Your task to perform on an android device: turn on the 24-hour format for clock Image 0: 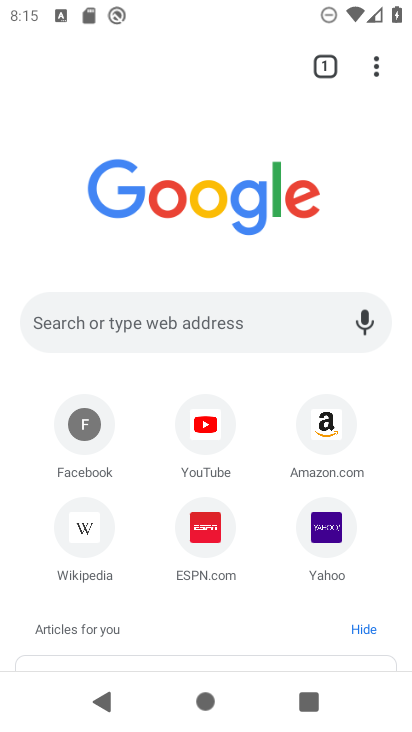
Step 0: press home button
Your task to perform on an android device: turn on the 24-hour format for clock Image 1: 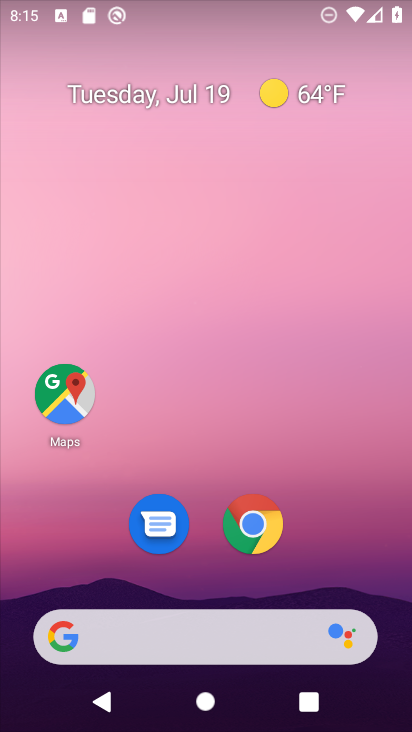
Step 1: drag from (328, 539) to (363, 75)
Your task to perform on an android device: turn on the 24-hour format for clock Image 2: 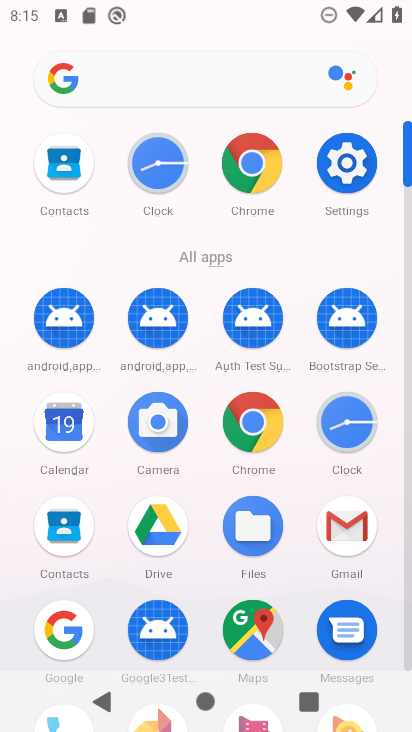
Step 2: click (159, 171)
Your task to perform on an android device: turn on the 24-hour format for clock Image 3: 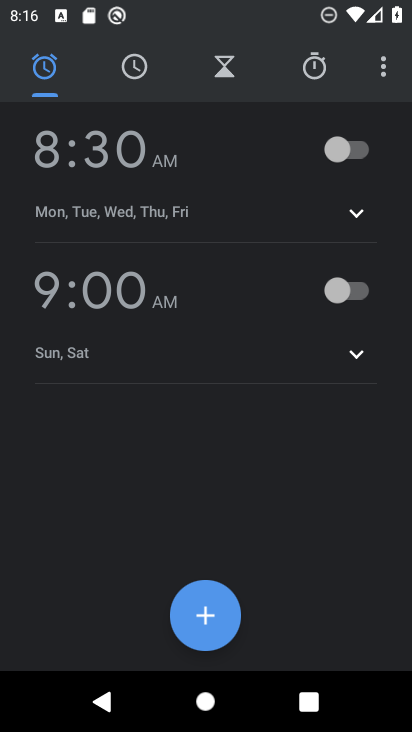
Step 3: click (383, 69)
Your task to perform on an android device: turn on the 24-hour format for clock Image 4: 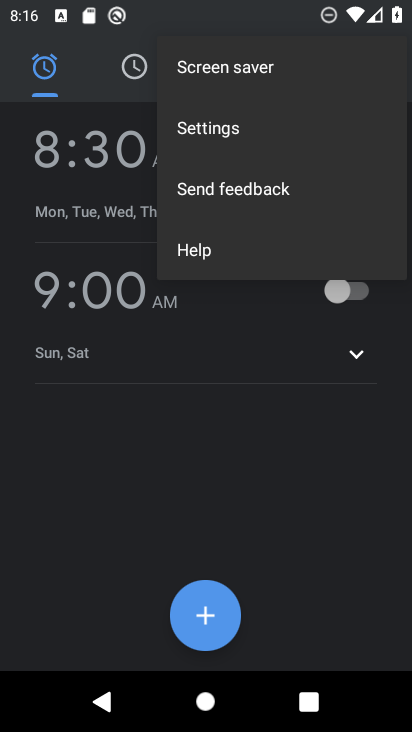
Step 4: click (270, 136)
Your task to perform on an android device: turn on the 24-hour format for clock Image 5: 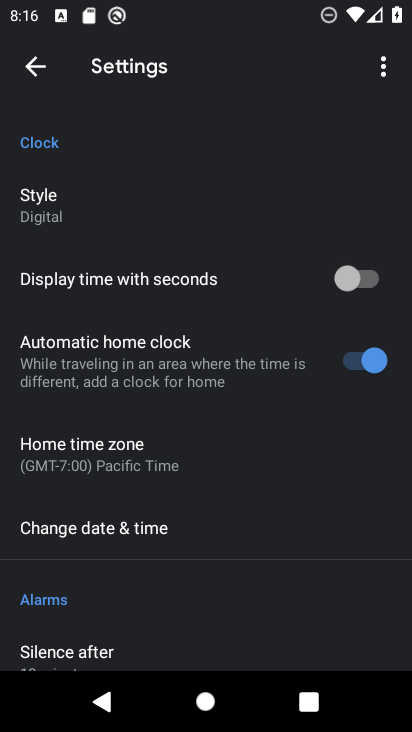
Step 5: click (192, 528)
Your task to perform on an android device: turn on the 24-hour format for clock Image 6: 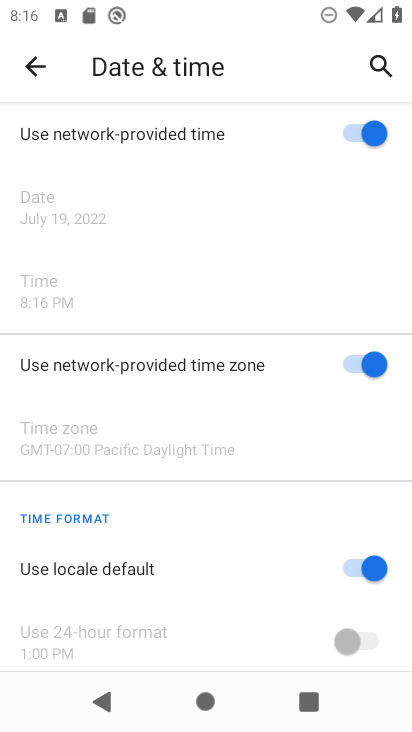
Step 6: click (353, 567)
Your task to perform on an android device: turn on the 24-hour format for clock Image 7: 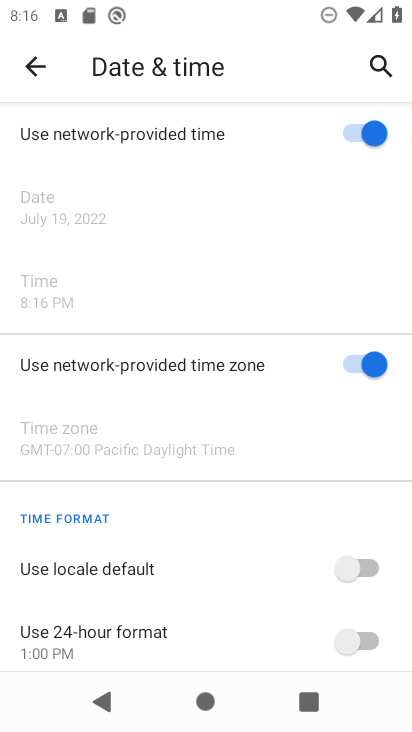
Step 7: click (368, 639)
Your task to perform on an android device: turn on the 24-hour format for clock Image 8: 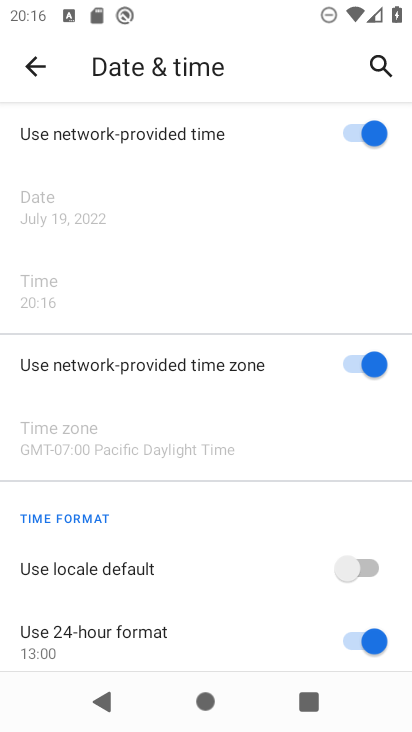
Step 8: task complete